Your task to perform on an android device: Go to Google Image 0: 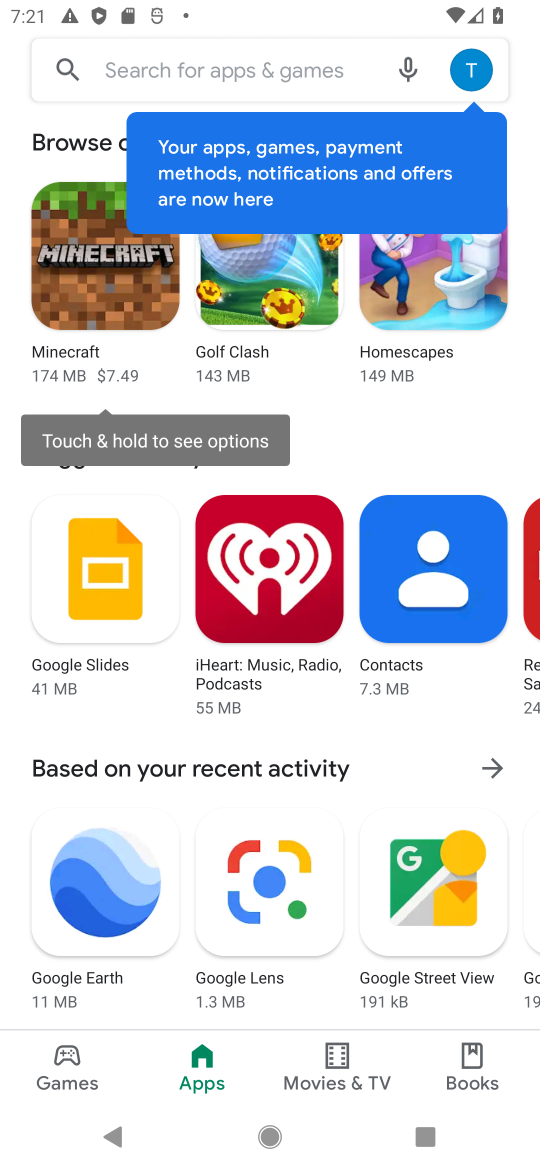
Step 0: click (167, 1043)
Your task to perform on an android device: Go to Google Image 1: 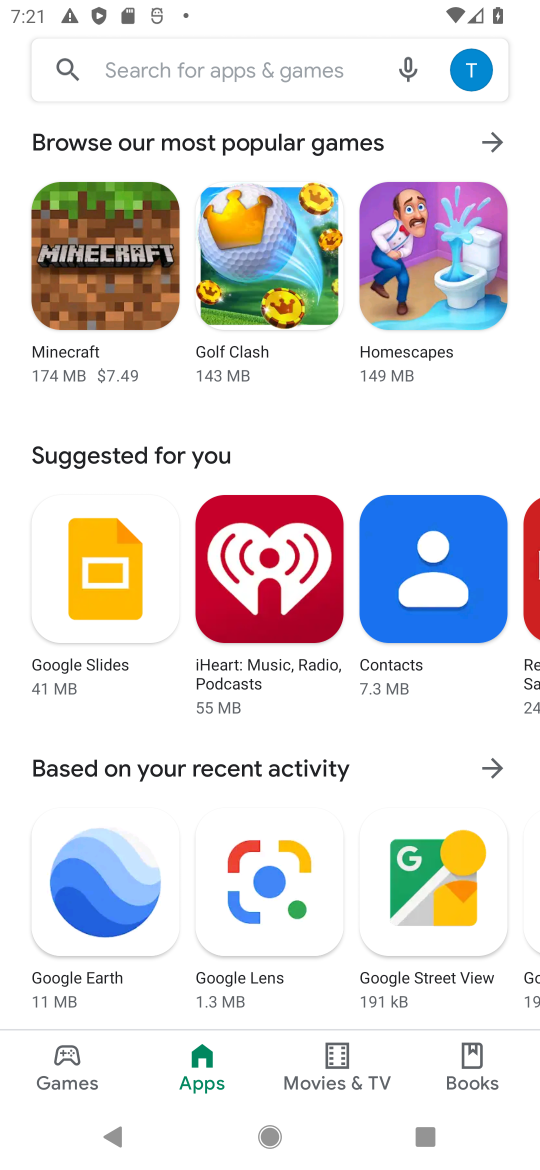
Step 1: press home button
Your task to perform on an android device: Go to Google Image 2: 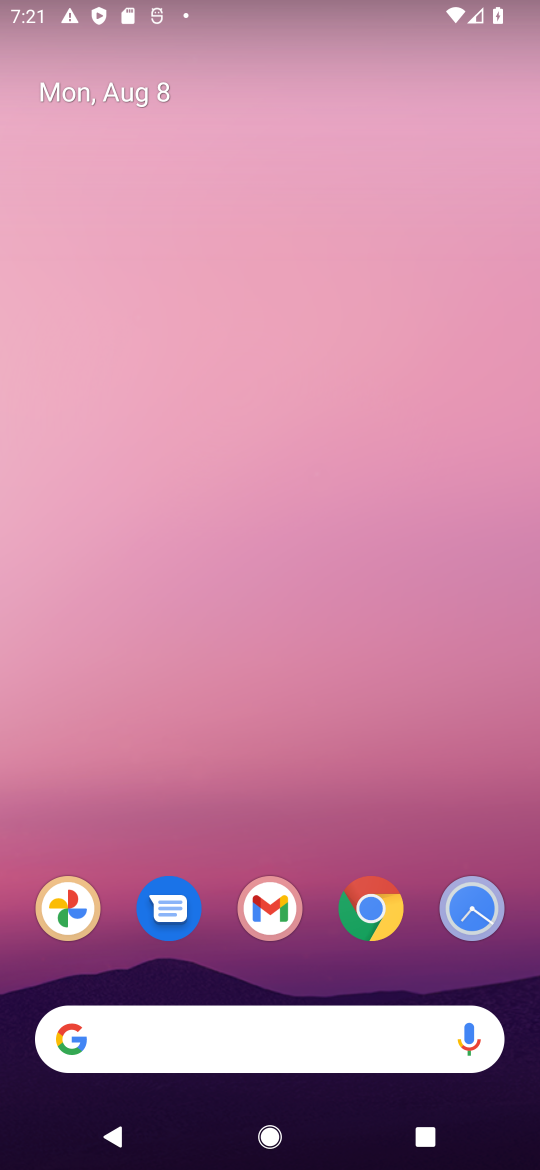
Step 2: click (383, 1047)
Your task to perform on an android device: Go to Google Image 3: 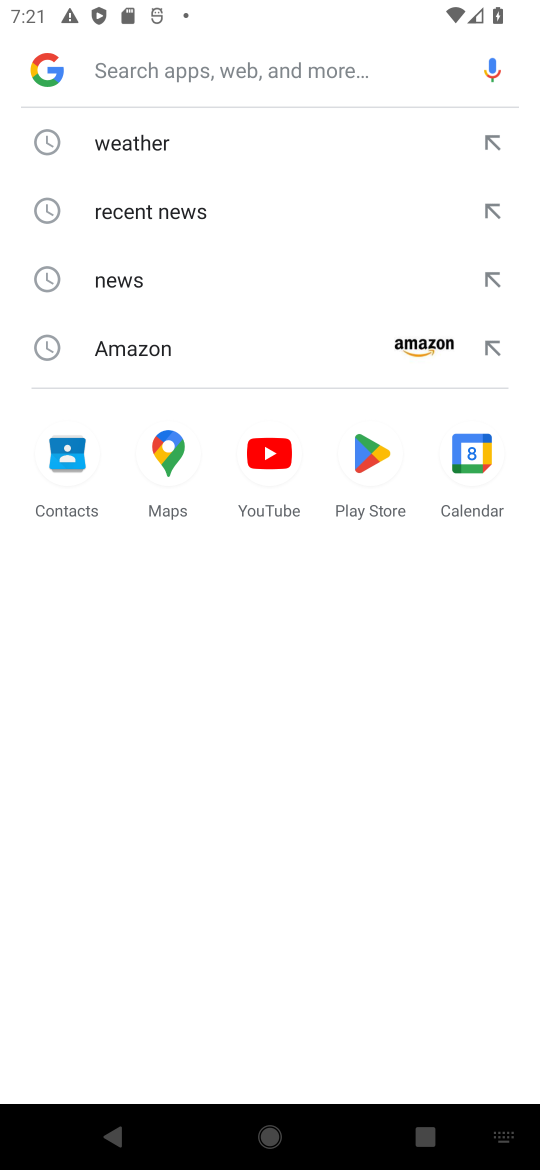
Step 3: task complete